Your task to perform on an android device: Play the last video I watched on Youtube Image 0: 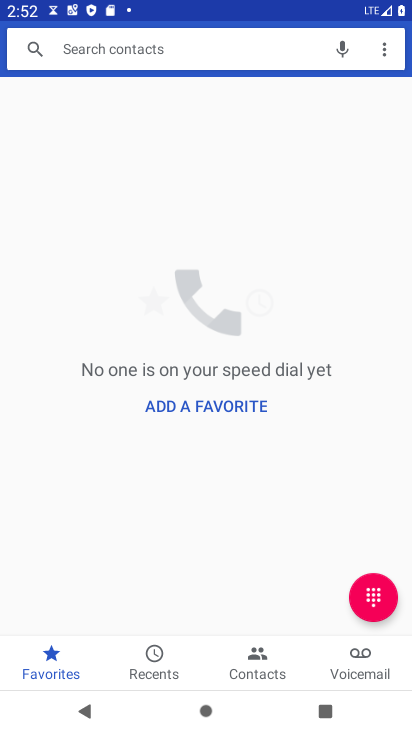
Step 0: drag from (221, 559) to (236, 82)
Your task to perform on an android device: Play the last video I watched on Youtube Image 1: 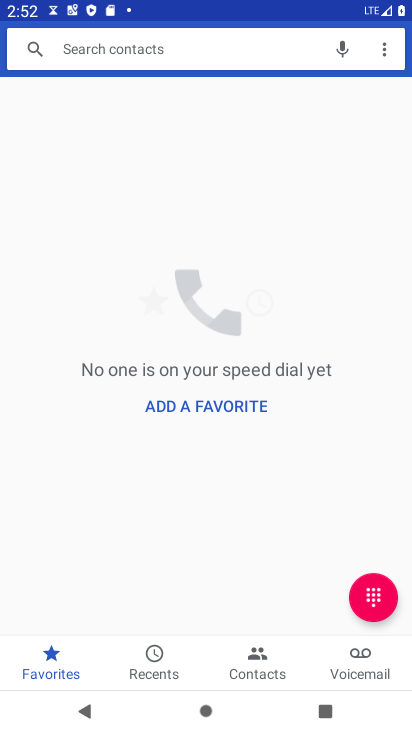
Step 1: press home button
Your task to perform on an android device: Play the last video I watched on Youtube Image 2: 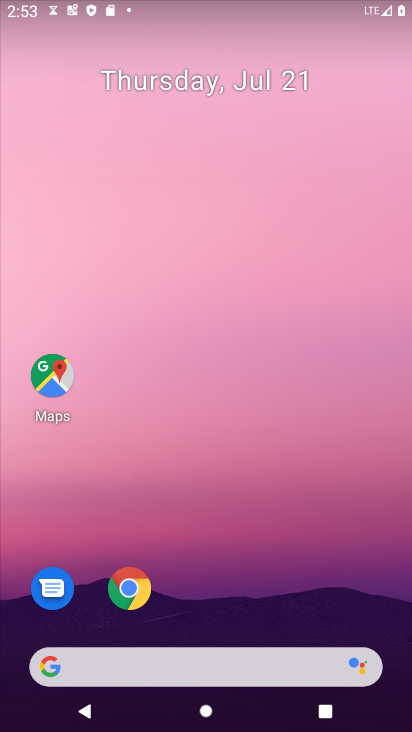
Step 2: drag from (223, 652) to (239, 239)
Your task to perform on an android device: Play the last video I watched on Youtube Image 3: 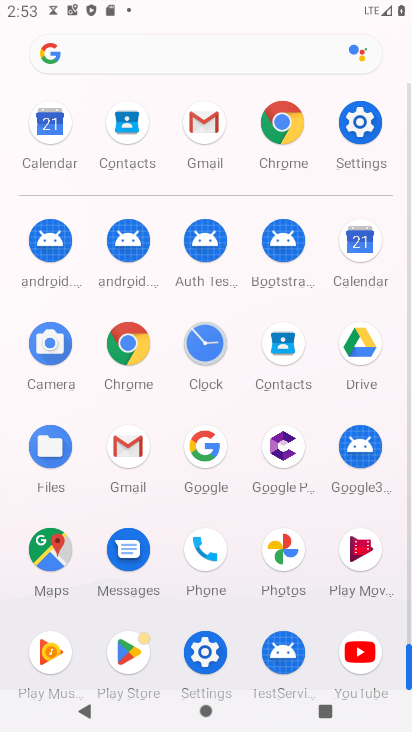
Step 3: click (356, 644)
Your task to perform on an android device: Play the last video I watched on Youtube Image 4: 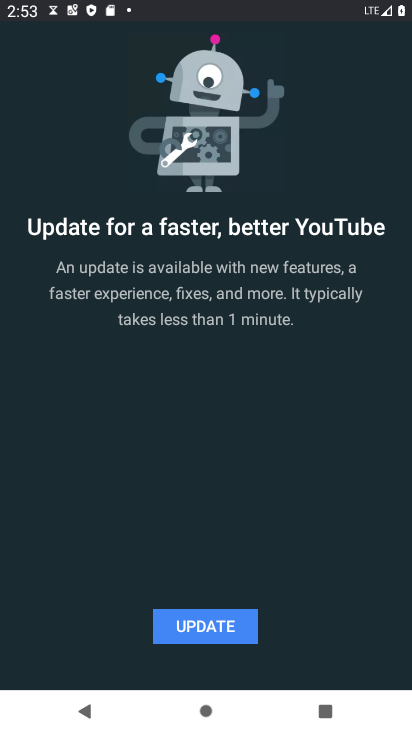
Step 4: task complete